Your task to perform on an android device: Go to Yahoo.com Image 0: 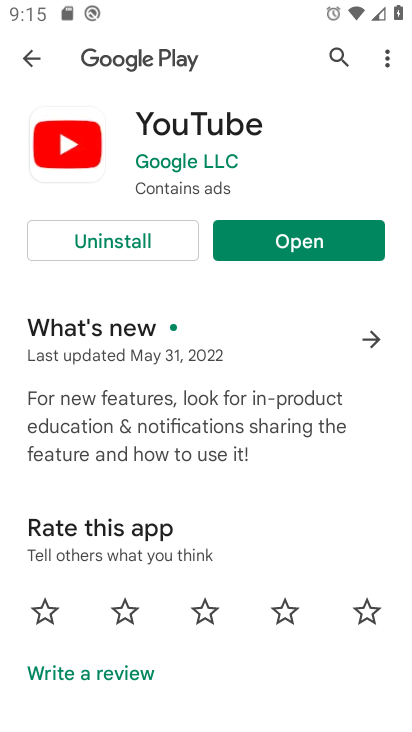
Step 0: press home button
Your task to perform on an android device: Go to Yahoo.com Image 1: 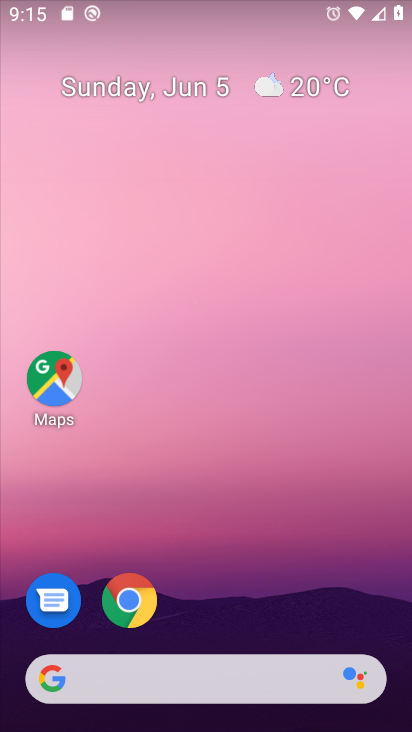
Step 1: click (289, 677)
Your task to perform on an android device: Go to Yahoo.com Image 2: 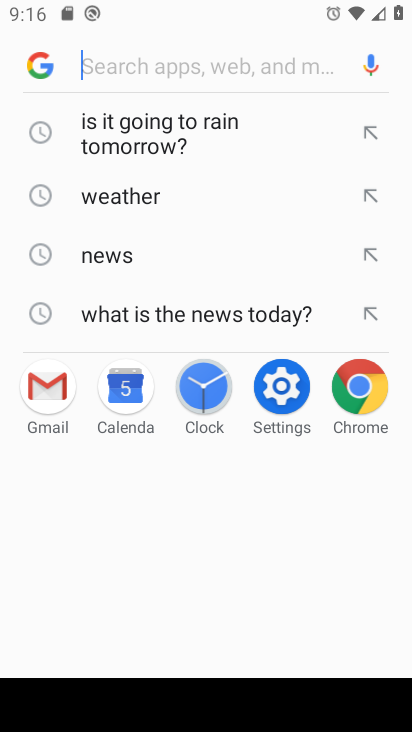
Step 2: type "yahoo.com"
Your task to perform on an android device: Go to Yahoo.com Image 3: 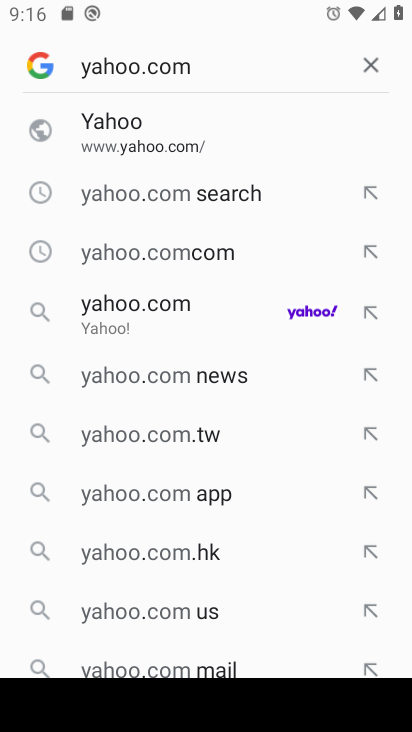
Step 3: click (157, 330)
Your task to perform on an android device: Go to Yahoo.com Image 4: 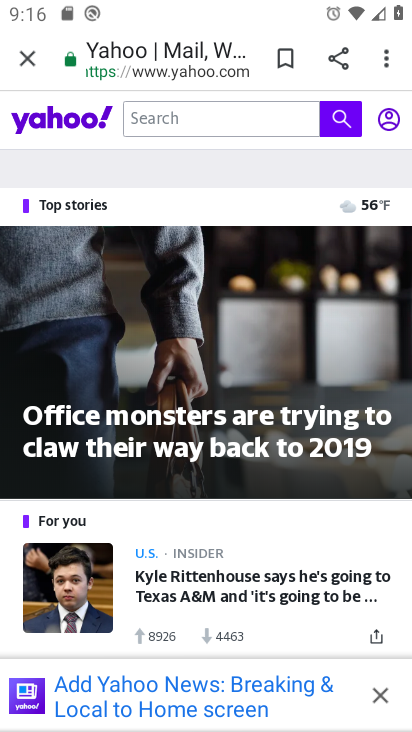
Step 4: task complete